Your task to perform on an android device: Go to location settings Image 0: 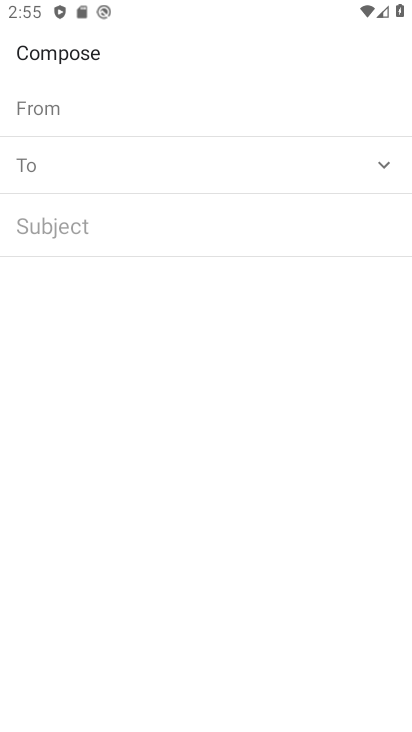
Step 0: click (411, 385)
Your task to perform on an android device: Go to location settings Image 1: 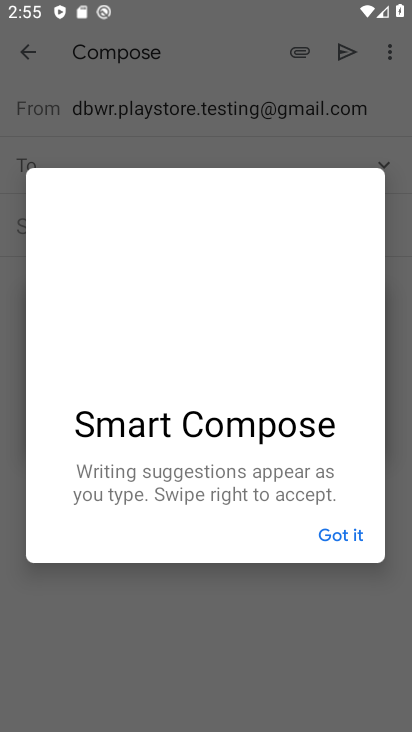
Step 1: press back button
Your task to perform on an android device: Go to location settings Image 2: 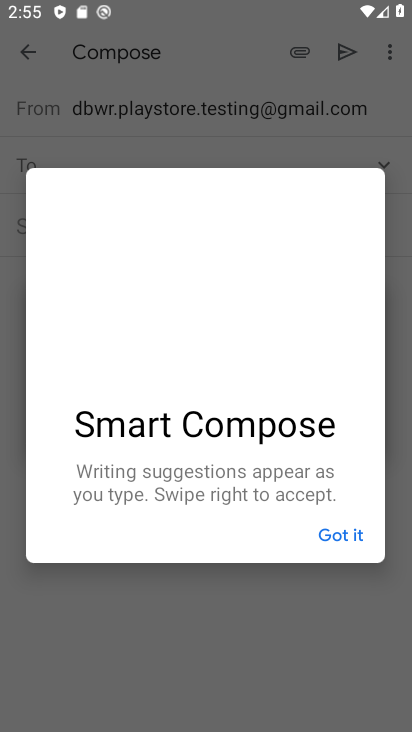
Step 2: click (389, 540)
Your task to perform on an android device: Go to location settings Image 3: 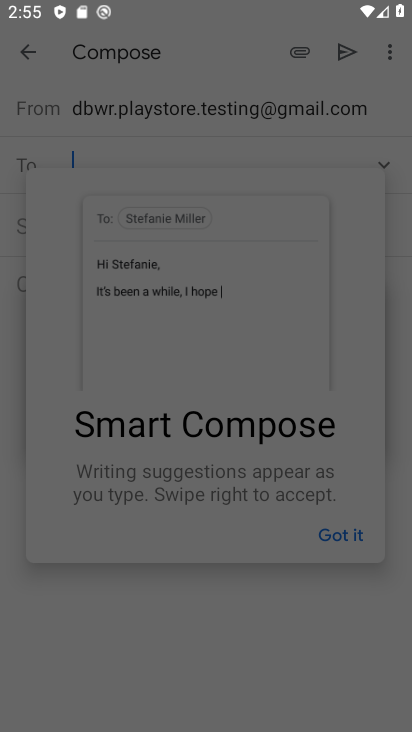
Step 3: click (321, 525)
Your task to perform on an android device: Go to location settings Image 4: 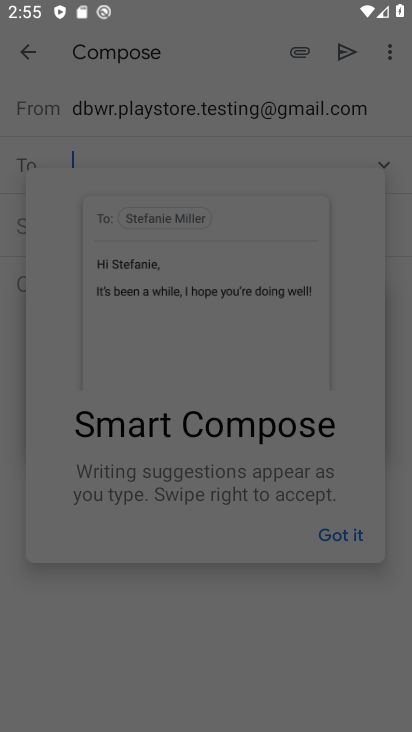
Step 4: click (338, 522)
Your task to perform on an android device: Go to location settings Image 5: 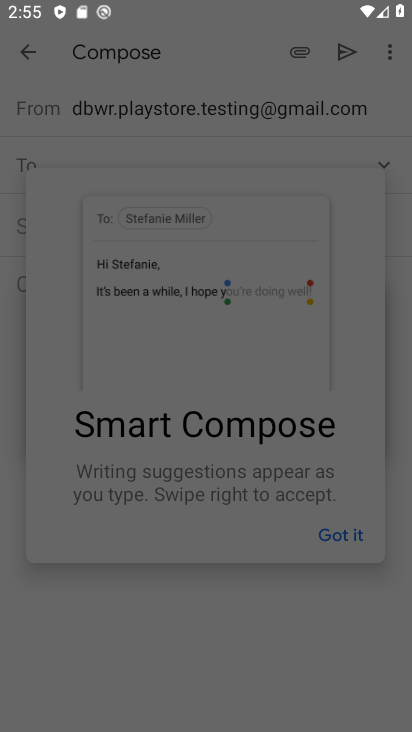
Step 5: press back button
Your task to perform on an android device: Go to location settings Image 6: 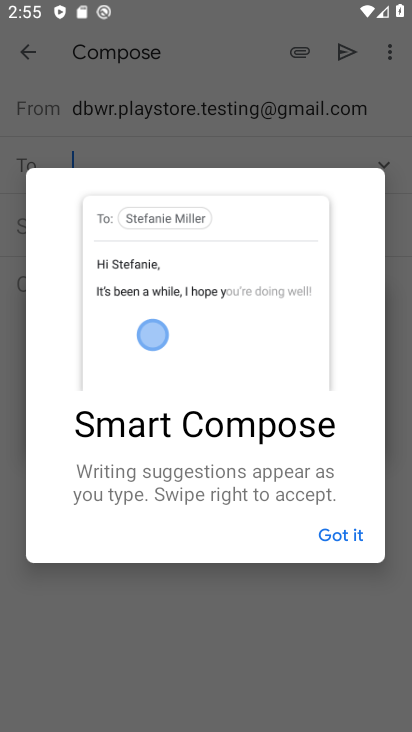
Step 6: press back button
Your task to perform on an android device: Go to location settings Image 7: 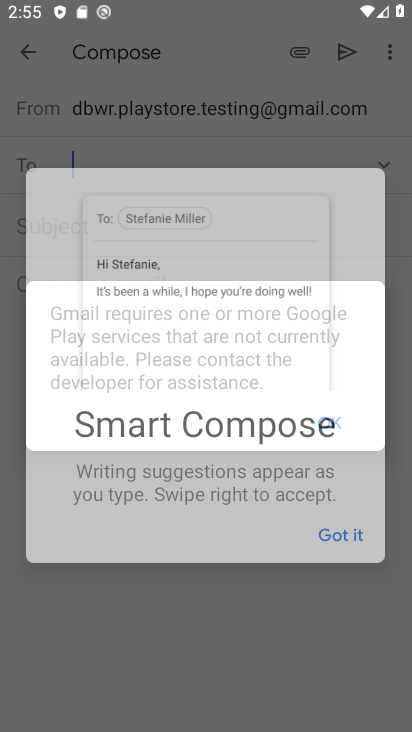
Step 7: press back button
Your task to perform on an android device: Go to location settings Image 8: 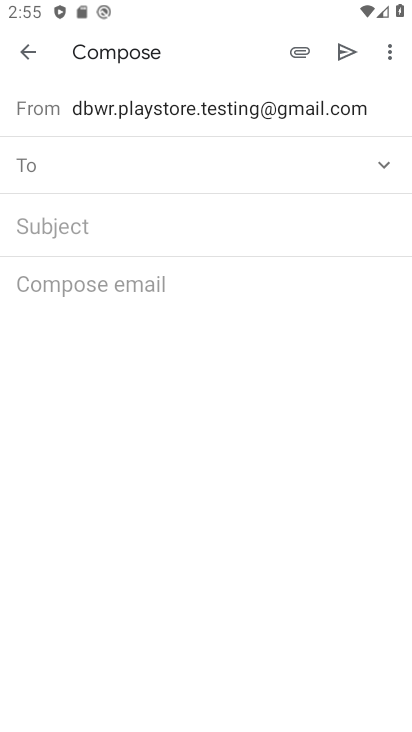
Step 8: click (29, 58)
Your task to perform on an android device: Go to location settings Image 9: 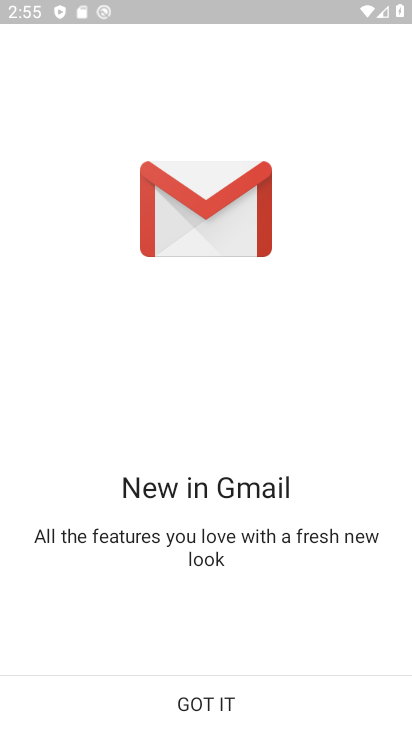
Step 9: press home button
Your task to perform on an android device: Go to location settings Image 10: 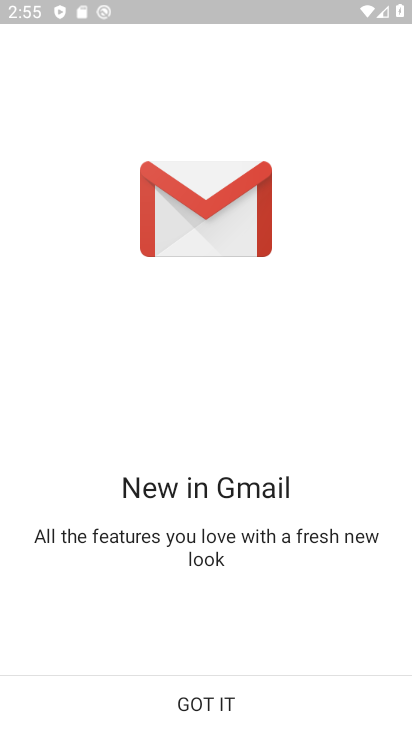
Step 10: press home button
Your task to perform on an android device: Go to location settings Image 11: 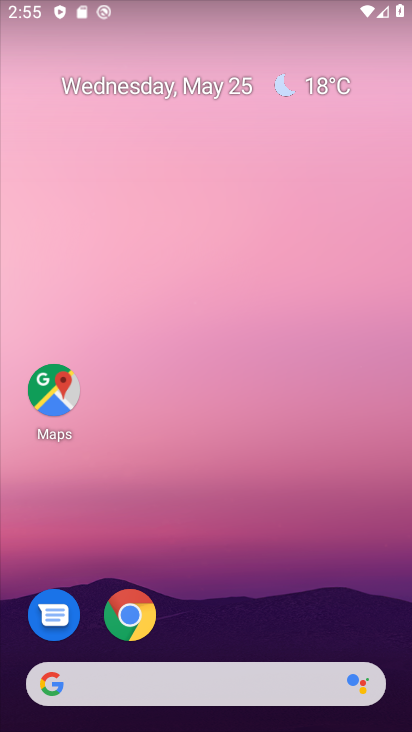
Step 11: drag from (271, 671) to (225, 131)
Your task to perform on an android device: Go to location settings Image 12: 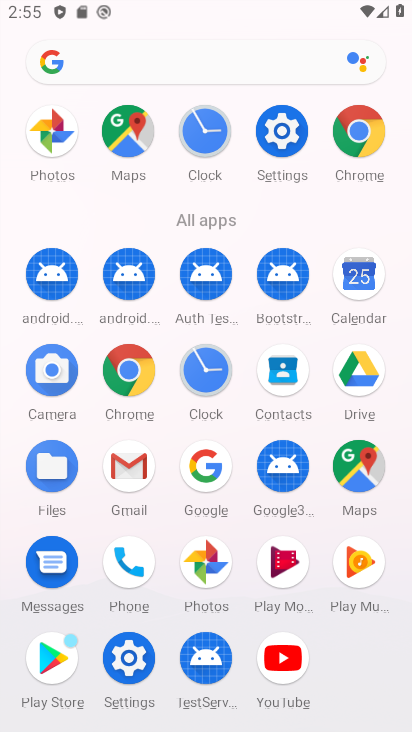
Step 12: click (126, 643)
Your task to perform on an android device: Go to location settings Image 13: 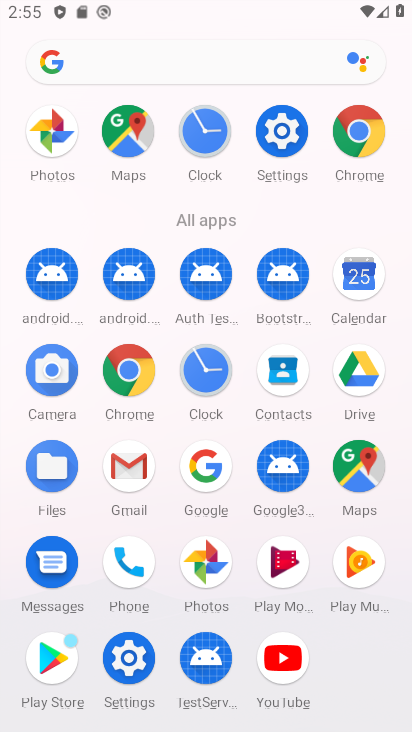
Step 13: click (126, 643)
Your task to perform on an android device: Go to location settings Image 14: 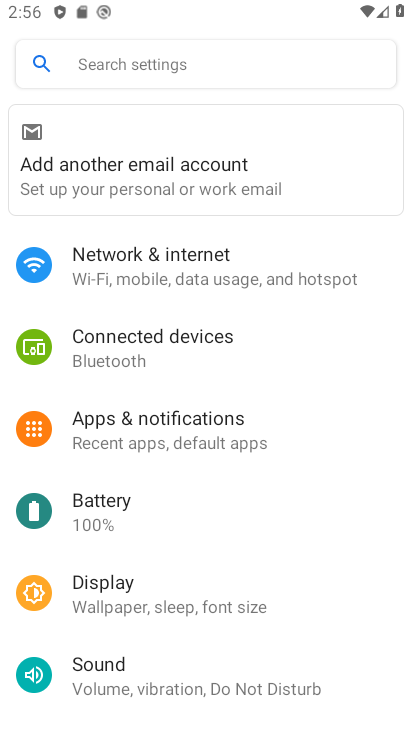
Step 14: drag from (126, 560) to (161, 243)
Your task to perform on an android device: Go to location settings Image 15: 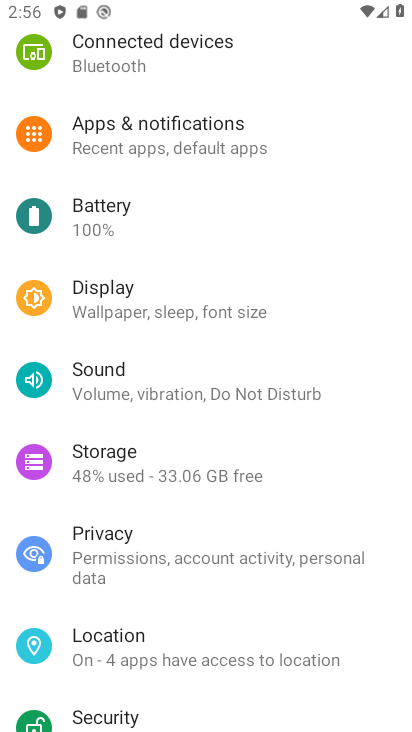
Step 15: click (124, 649)
Your task to perform on an android device: Go to location settings Image 16: 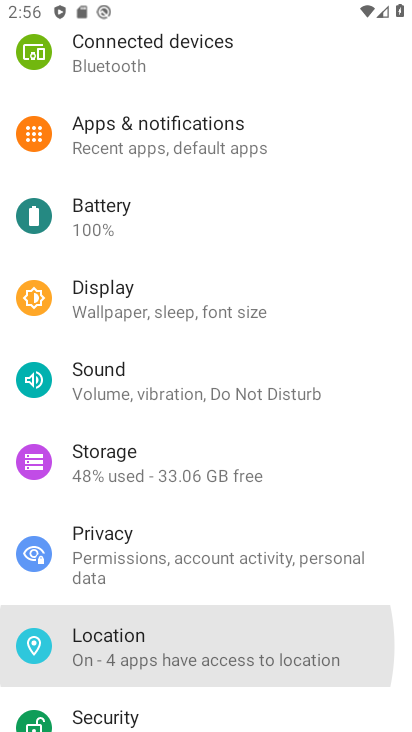
Step 16: click (124, 649)
Your task to perform on an android device: Go to location settings Image 17: 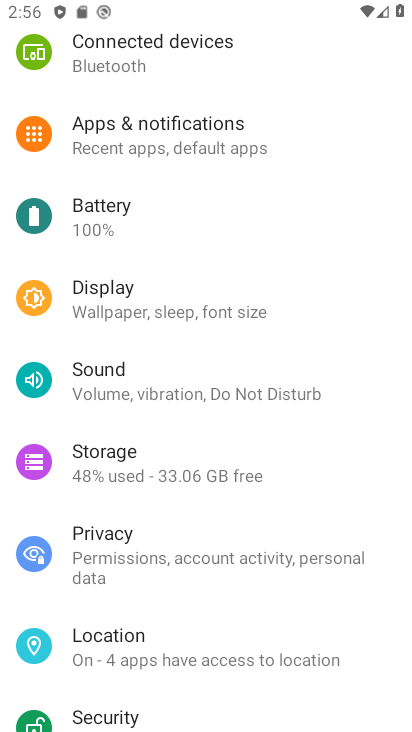
Step 17: click (124, 649)
Your task to perform on an android device: Go to location settings Image 18: 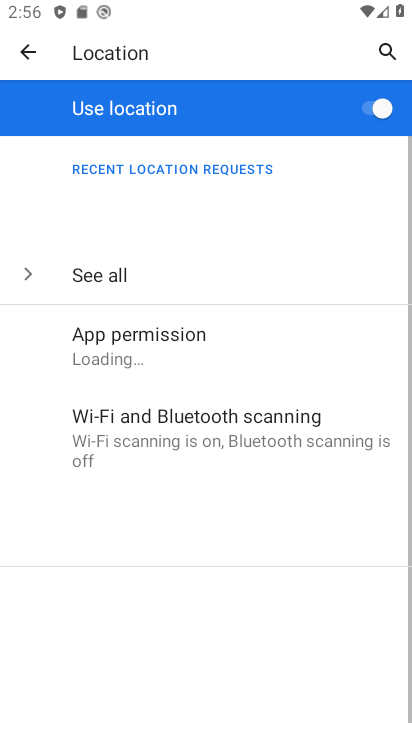
Step 18: click (134, 653)
Your task to perform on an android device: Go to location settings Image 19: 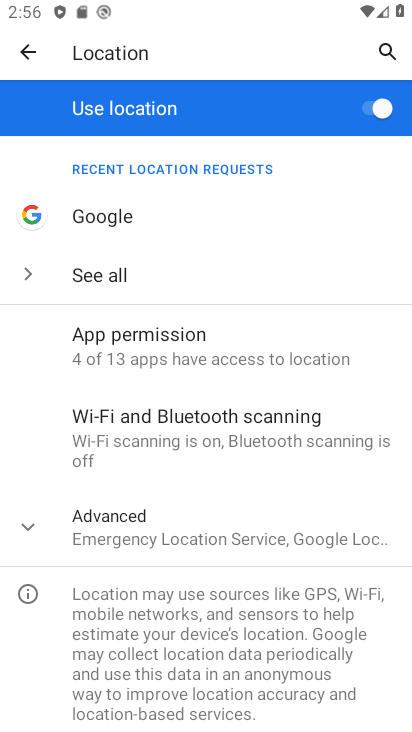
Step 19: click (123, 532)
Your task to perform on an android device: Go to location settings Image 20: 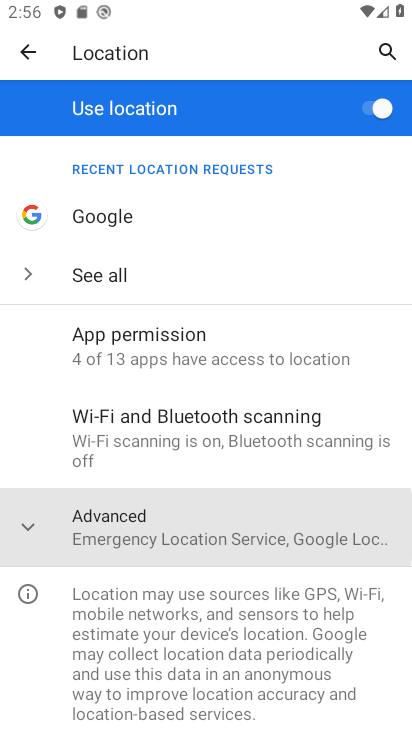
Step 20: click (123, 532)
Your task to perform on an android device: Go to location settings Image 21: 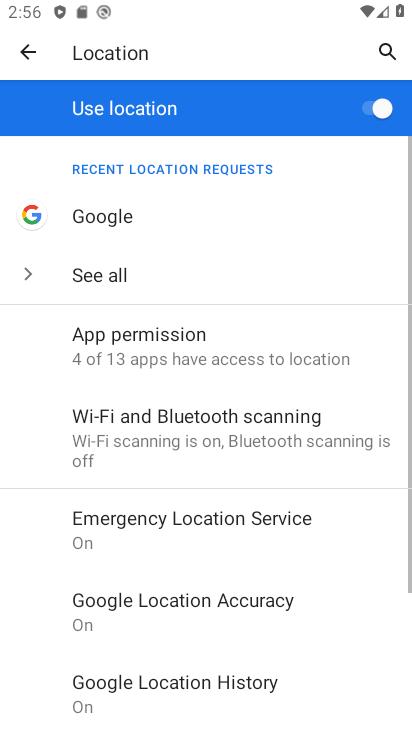
Step 21: click (123, 532)
Your task to perform on an android device: Go to location settings Image 22: 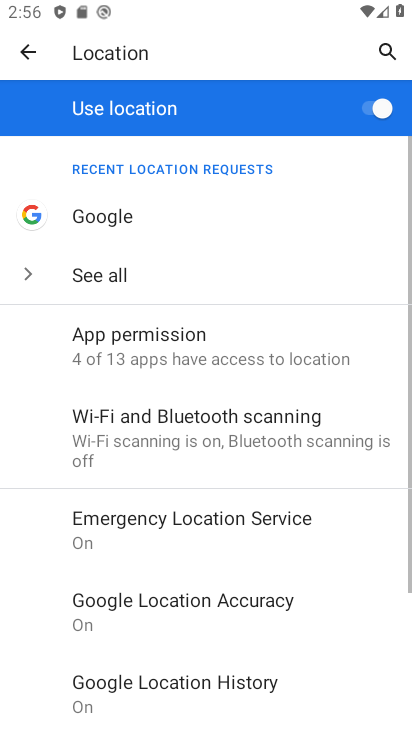
Step 22: click (123, 532)
Your task to perform on an android device: Go to location settings Image 23: 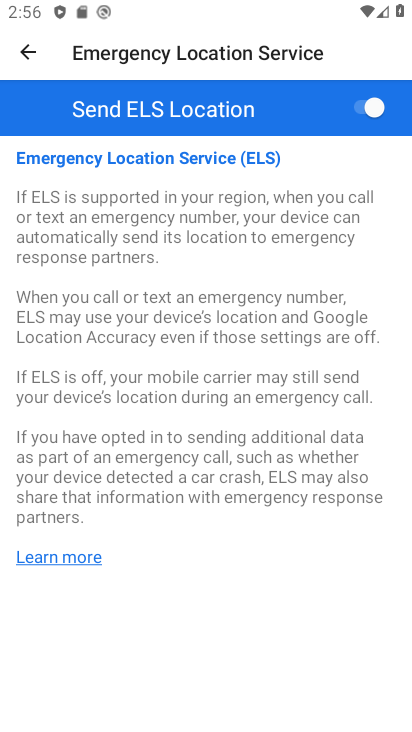
Step 23: click (26, 52)
Your task to perform on an android device: Go to location settings Image 24: 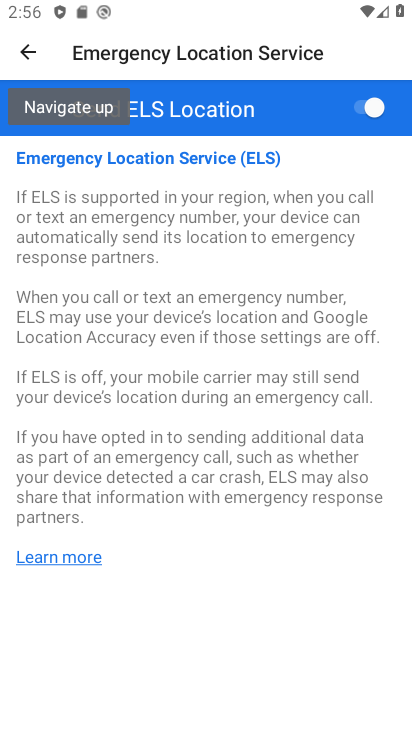
Step 24: click (24, 47)
Your task to perform on an android device: Go to location settings Image 25: 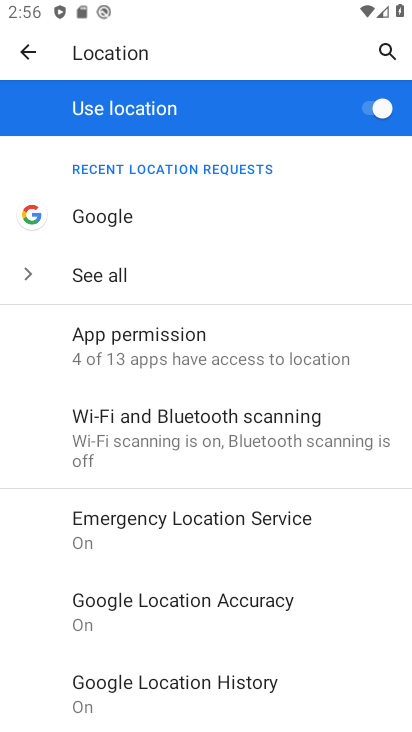
Step 25: task complete